Your task to perform on an android device: Toggle the flashlight Image 0: 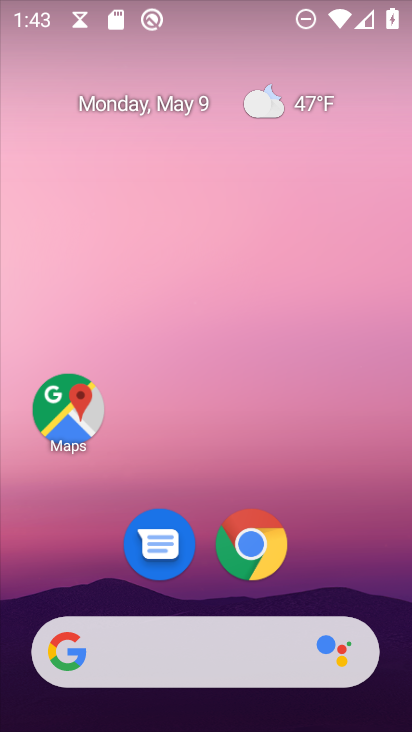
Step 0: drag from (329, 514) to (348, 121)
Your task to perform on an android device: Toggle the flashlight Image 1: 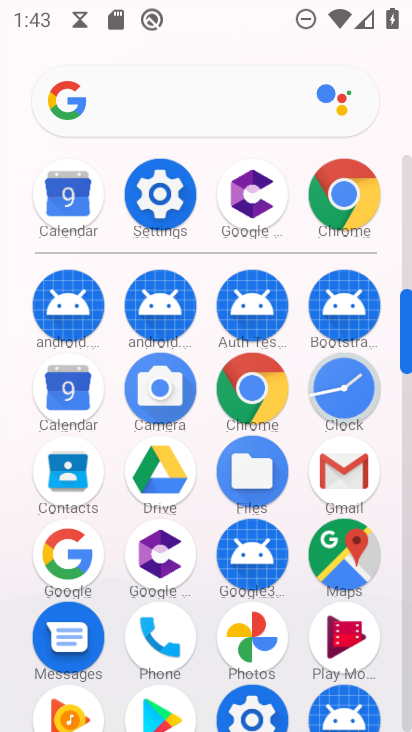
Step 1: click (173, 178)
Your task to perform on an android device: Toggle the flashlight Image 2: 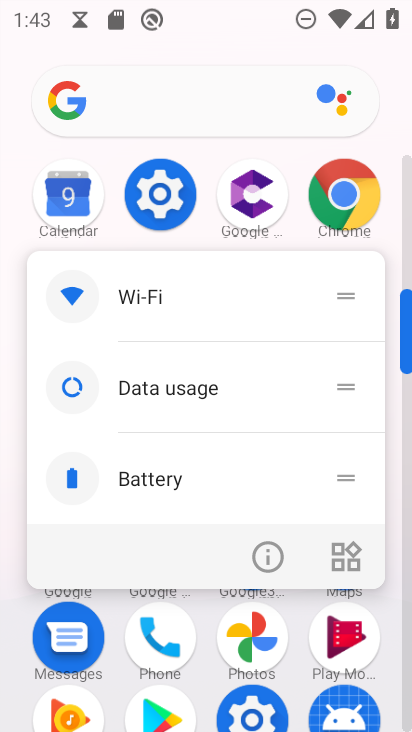
Step 2: click (156, 189)
Your task to perform on an android device: Toggle the flashlight Image 3: 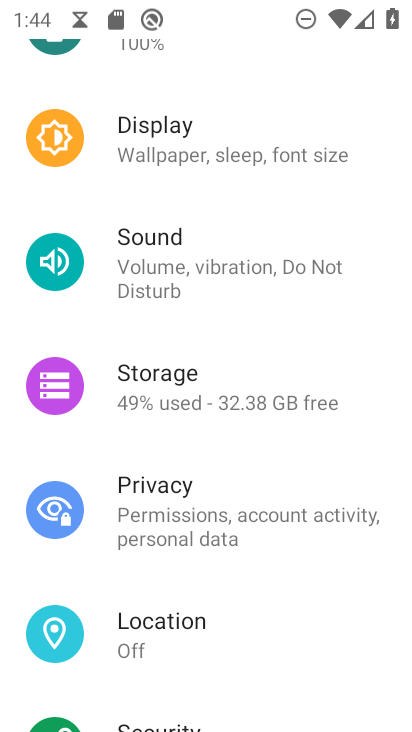
Step 3: task complete